Your task to perform on an android device: create a new album in the google photos Image 0: 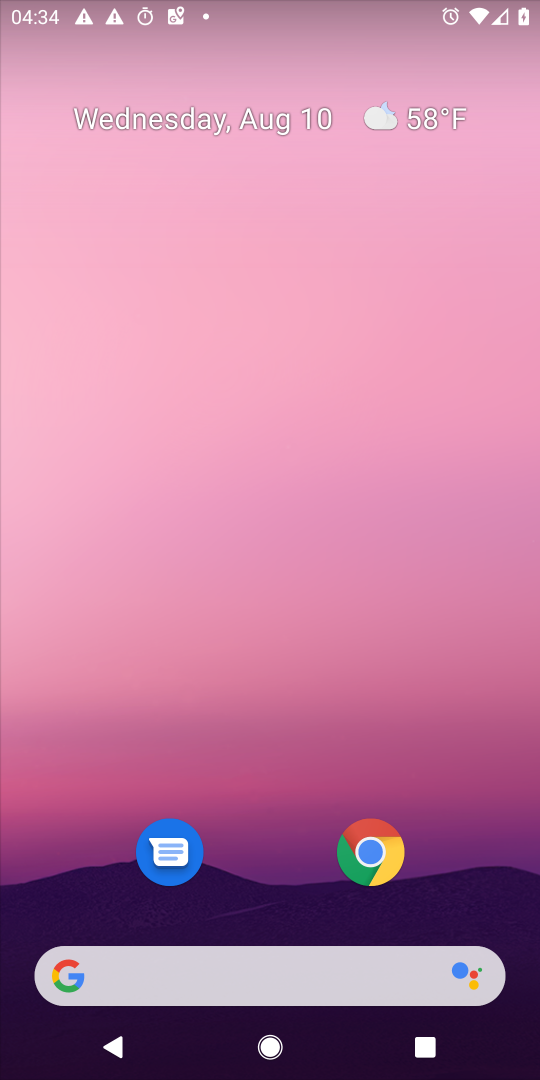
Step 0: drag from (248, 922) to (23, 250)
Your task to perform on an android device: create a new album in the google photos Image 1: 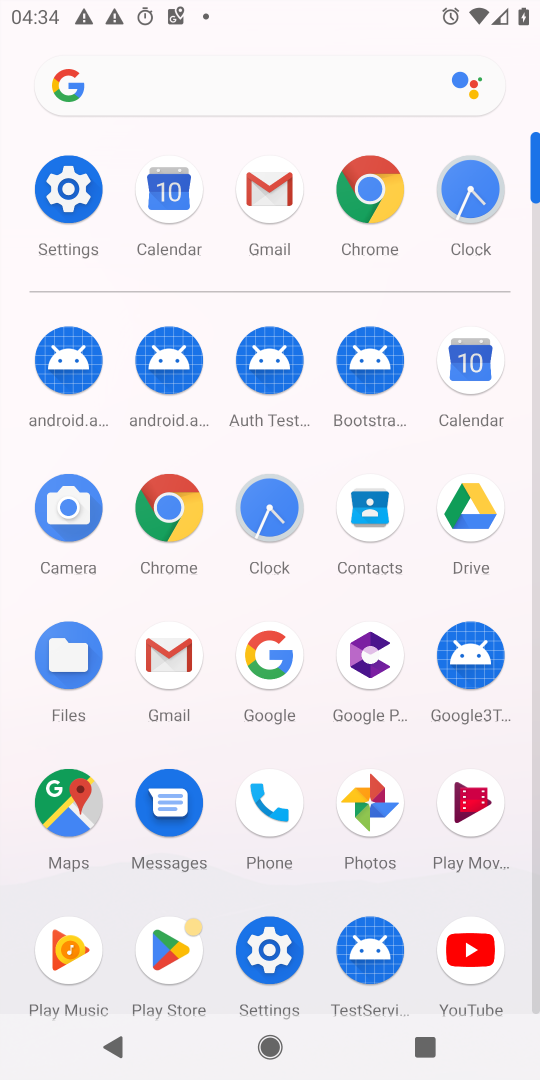
Step 1: click (373, 807)
Your task to perform on an android device: create a new album in the google photos Image 2: 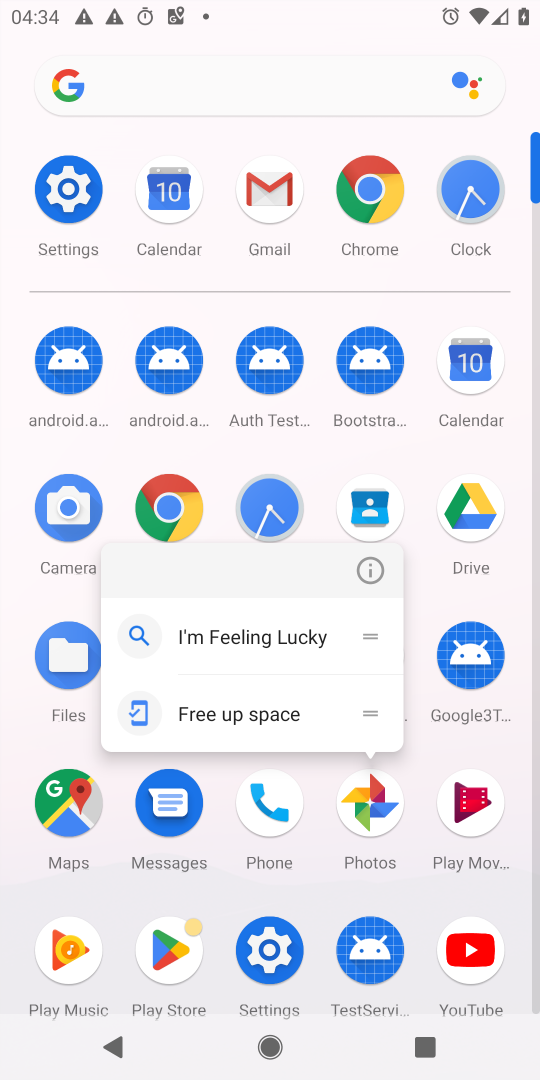
Step 2: click (373, 807)
Your task to perform on an android device: create a new album in the google photos Image 3: 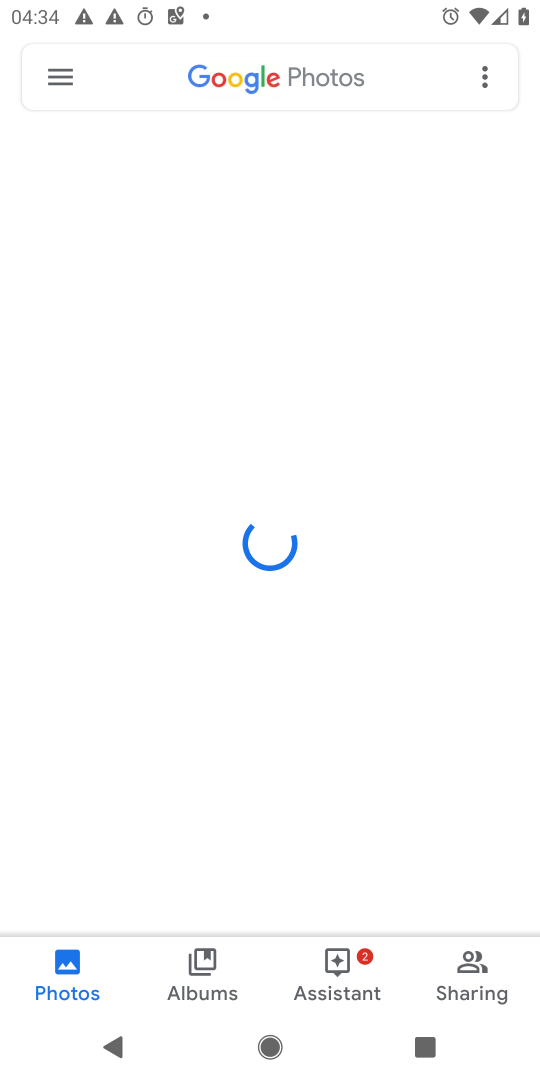
Step 3: click (206, 973)
Your task to perform on an android device: create a new album in the google photos Image 4: 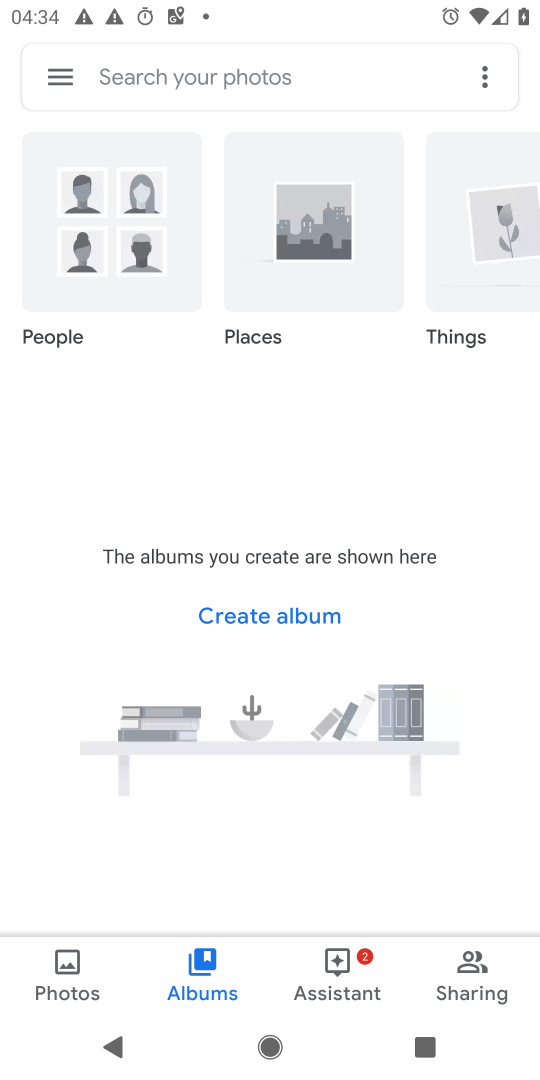
Step 4: click (241, 618)
Your task to perform on an android device: create a new album in the google photos Image 5: 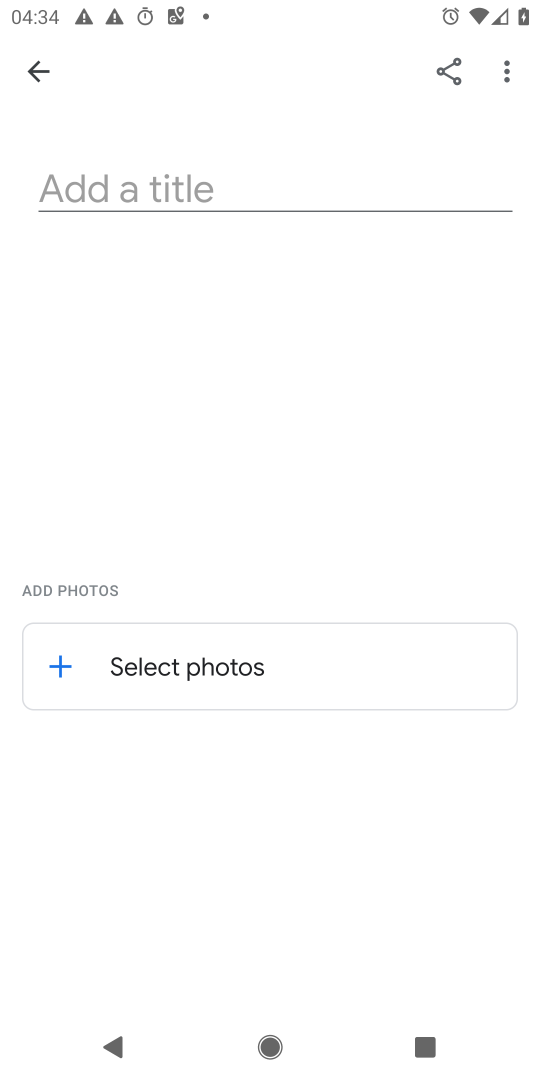
Step 5: click (269, 176)
Your task to perform on an android device: create a new album in the google photos Image 6: 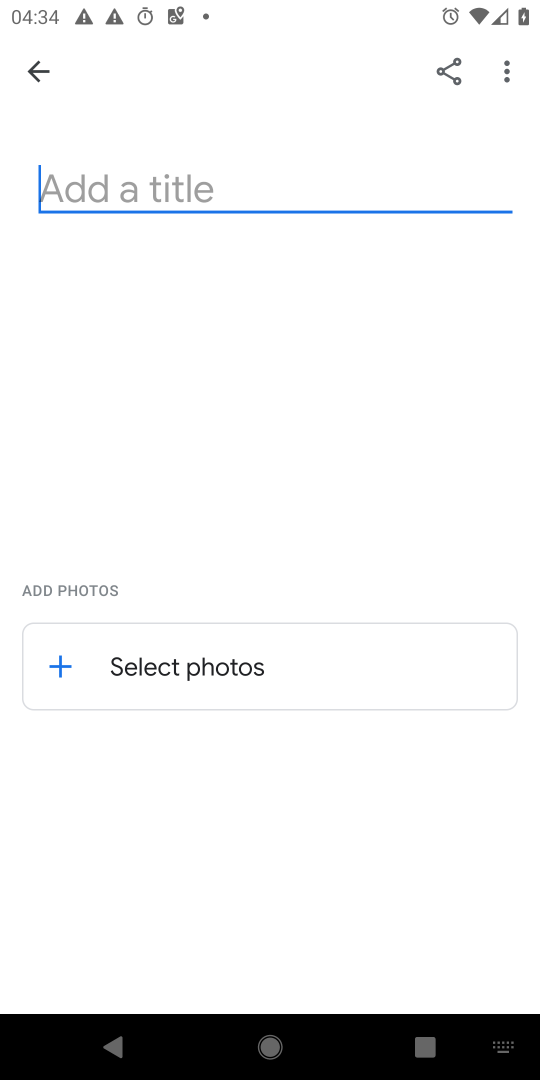
Step 6: type "watch"
Your task to perform on an android device: create a new album in the google photos Image 7: 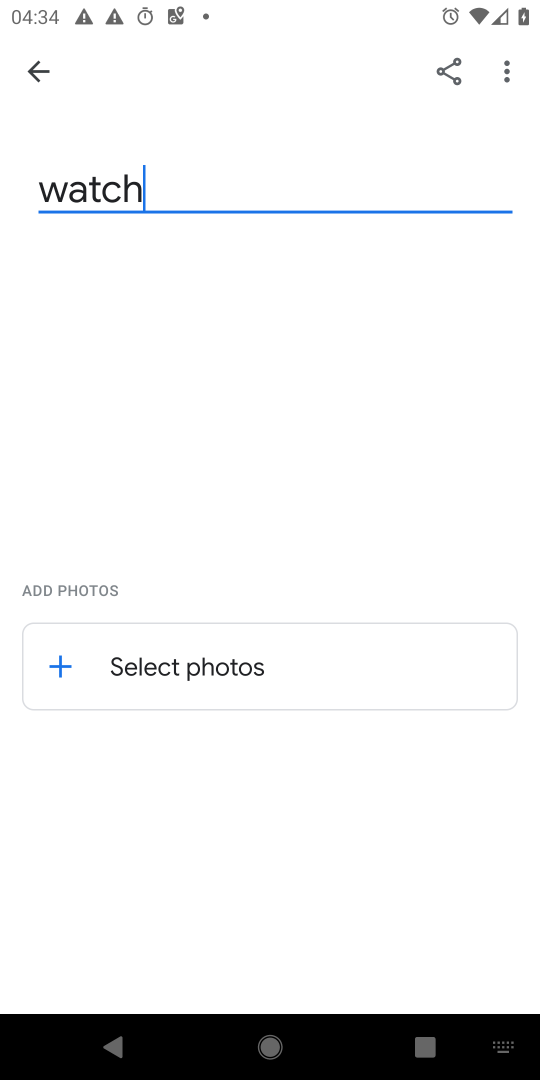
Step 7: click (525, 65)
Your task to perform on an android device: create a new album in the google photos Image 8: 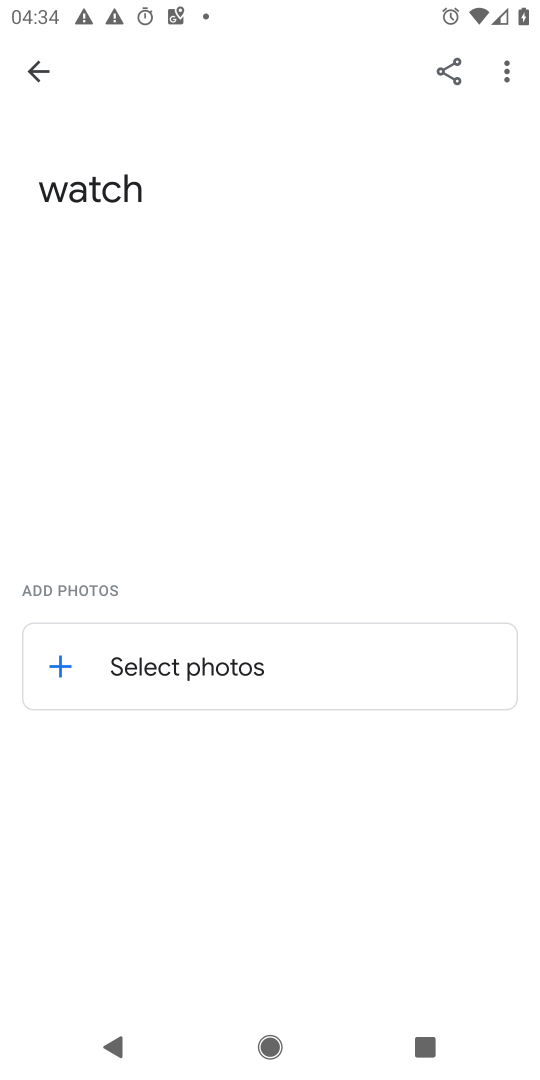
Step 8: click (505, 70)
Your task to perform on an android device: create a new album in the google photos Image 9: 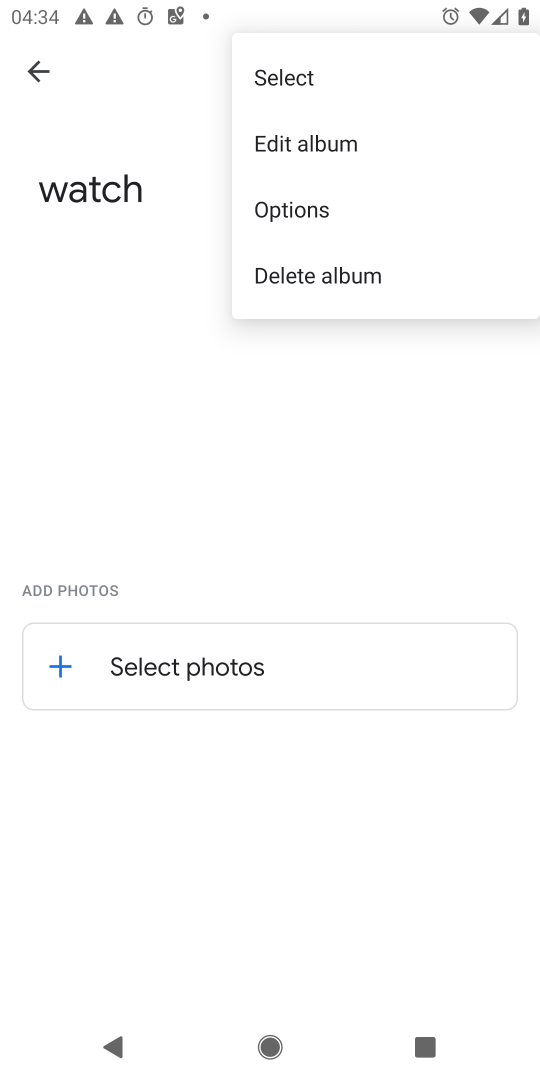
Step 9: task complete